Your task to perform on an android device: clear history in the chrome app Image 0: 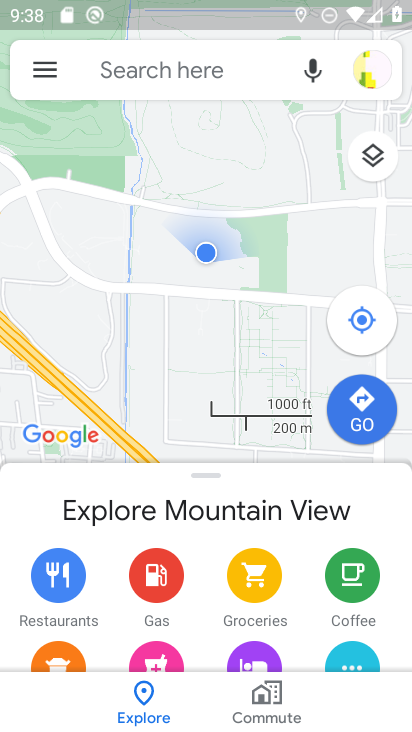
Step 0: press back button
Your task to perform on an android device: clear history in the chrome app Image 1: 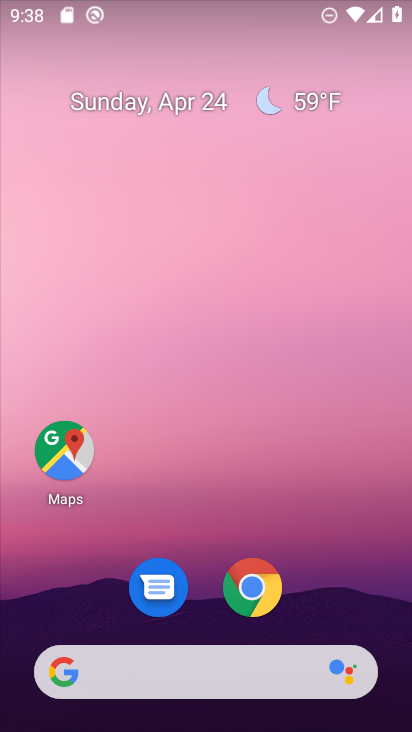
Step 1: click (251, 591)
Your task to perform on an android device: clear history in the chrome app Image 2: 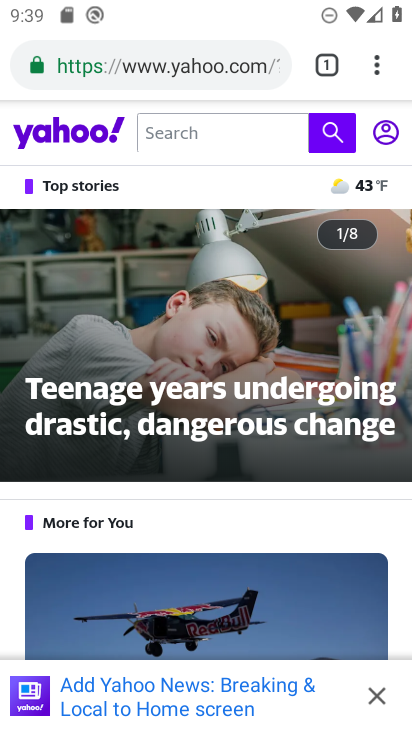
Step 2: click (380, 65)
Your task to perform on an android device: clear history in the chrome app Image 3: 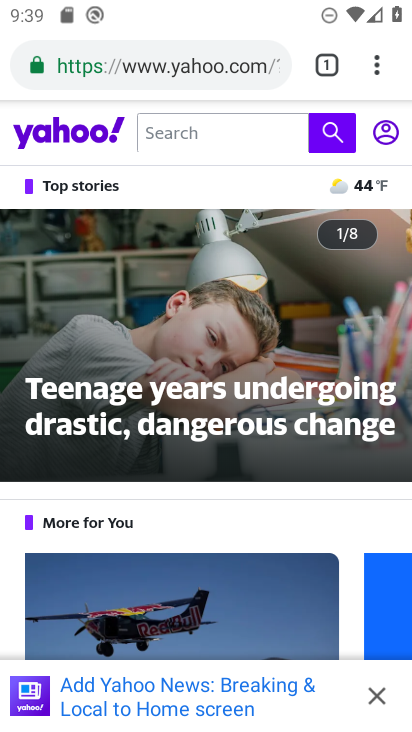
Step 3: click (375, 65)
Your task to perform on an android device: clear history in the chrome app Image 4: 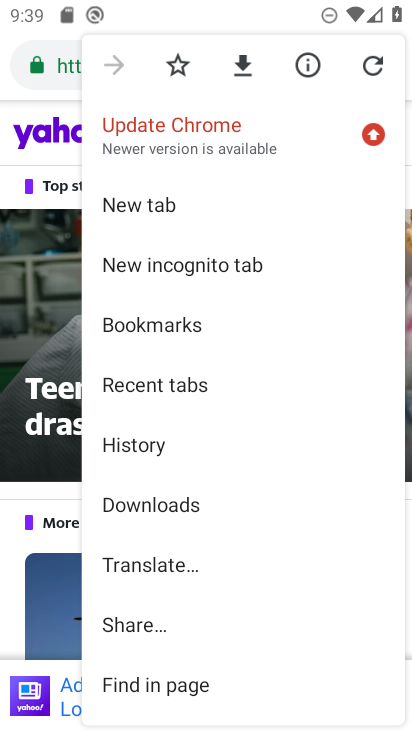
Step 4: click (149, 435)
Your task to perform on an android device: clear history in the chrome app Image 5: 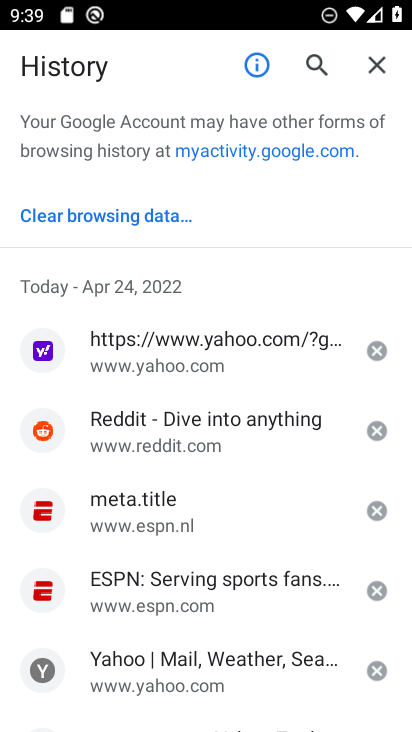
Step 5: click (143, 219)
Your task to perform on an android device: clear history in the chrome app Image 6: 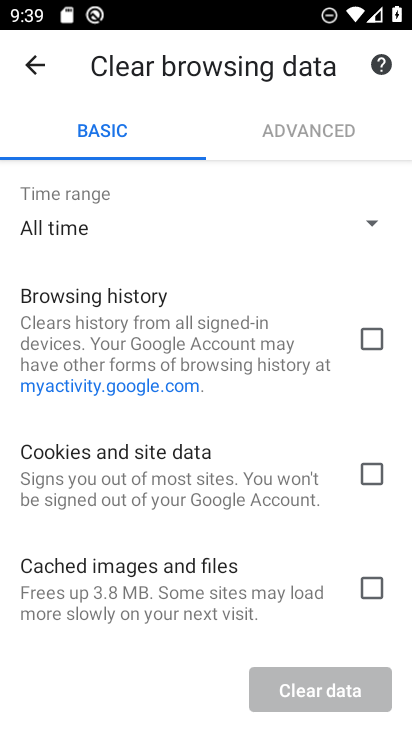
Step 6: click (377, 342)
Your task to perform on an android device: clear history in the chrome app Image 7: 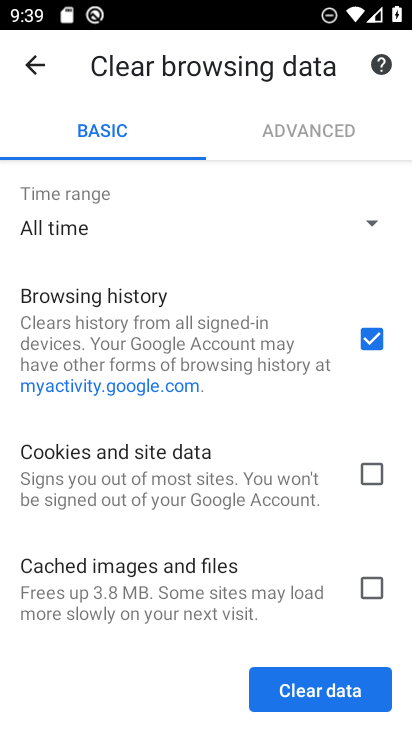
Step 7: click (332, 706)
Your task to perform on an android device: clear history in the chrome app Image 8: 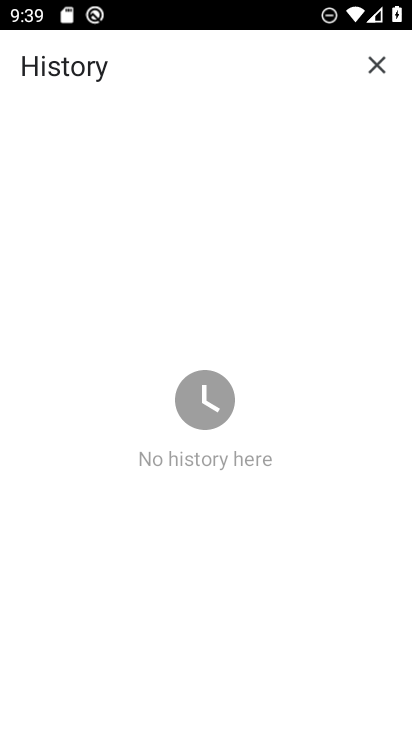
Step 8: task complete